Your task to perform on an android device: What's on my calendar today? Image 0: 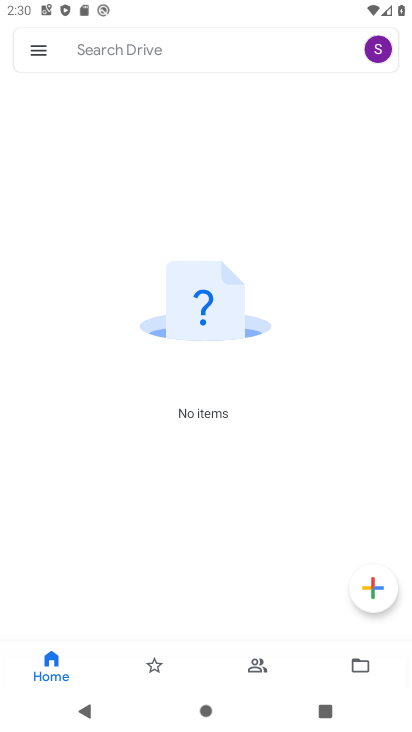
Step 0: press home button
Your task to perform on an android device: What's on my calendar today? Image 1: 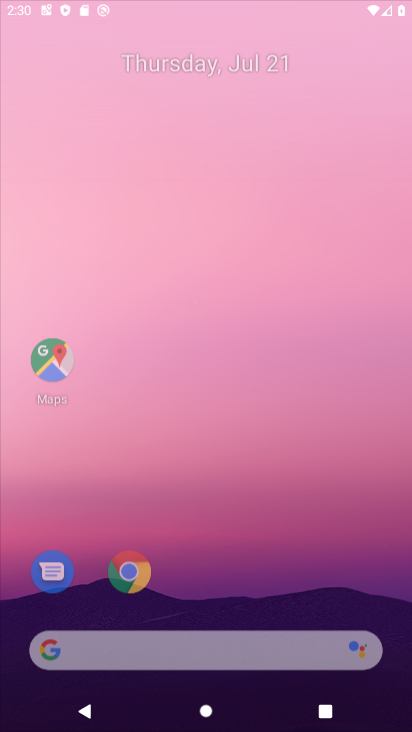
Step 1: drag from (222, 499) to (258, 98)
Your task to perform on an android device: What's on my calendar today? Image 2: 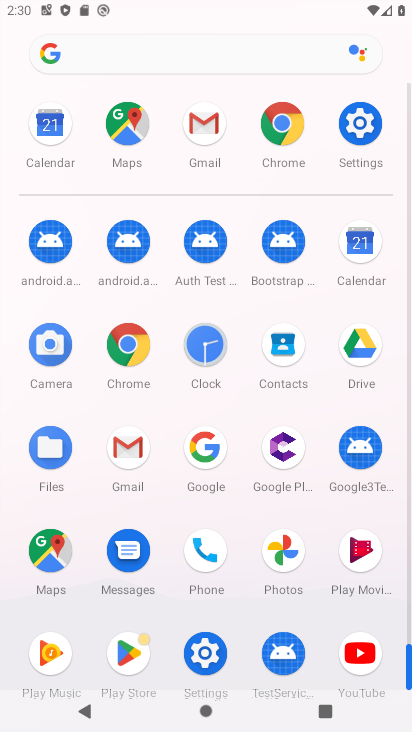
Step 2: drag from (243, 594) to (276, 323)
Your task to perform on an android device: What's on my calendar today? Image 3: 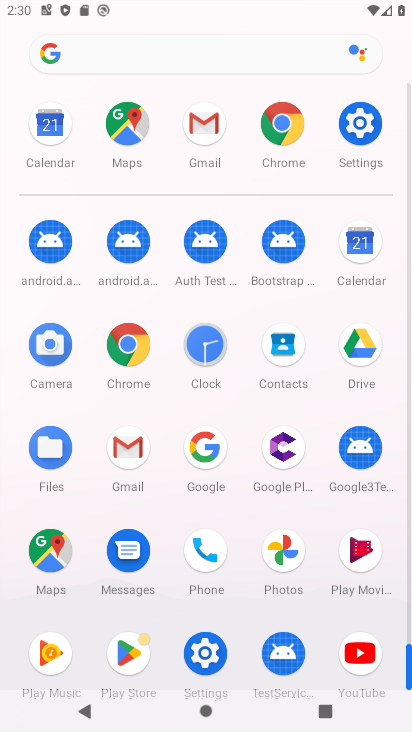
Step 3: drag from (235, 576) to (241, 417)
Your task to perform on an android device: What's on my calendar today? Image 4: 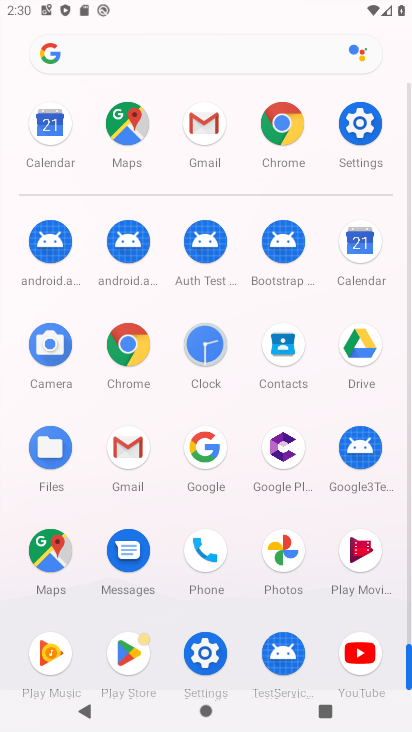
Step 4: drag from (243, 596) to (261, 336)
Your task to perform on an android device: What's on my calendar today? Image 5: 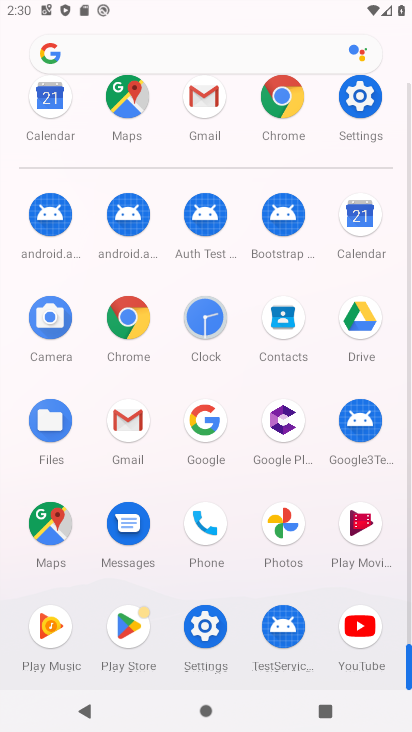
Step 5: click (361, 233)
Your task to perform on an android device: What's on my calendar today? Image 6: 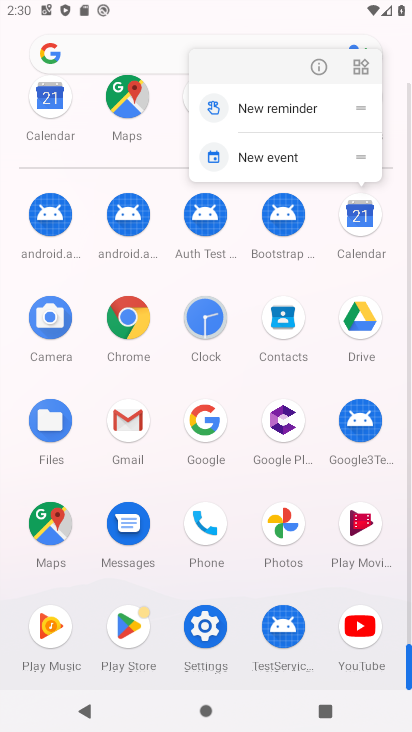
Step 6: click (314, 75)
Your task to perform on an android device: What's on my calendar today? Image 7: 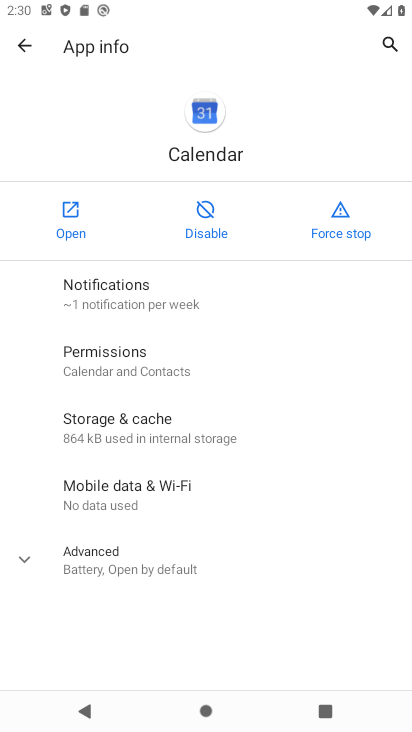
Step 7: click (44, 208)
Your task to perform on an android device: What's on my calendar today? Image 8: 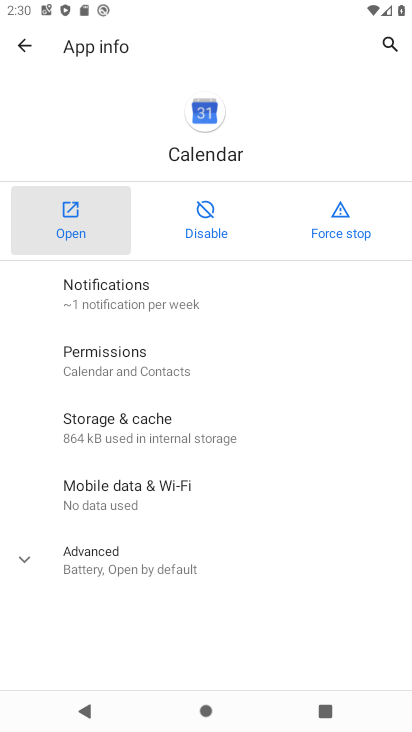
Step 8: click (69, 210)
Your task to perform on an android device: What's on my calendar today? Image 9: 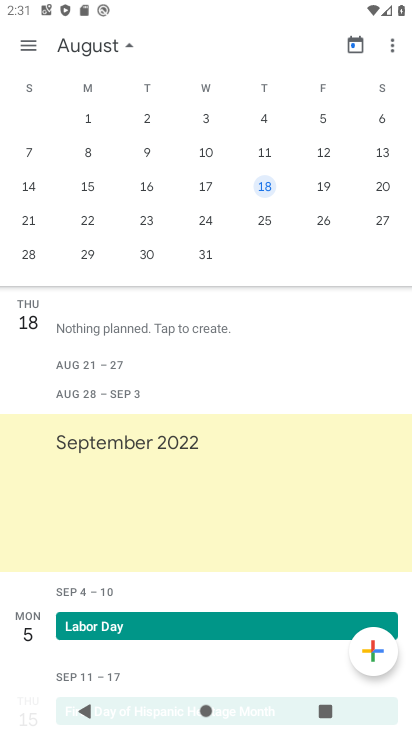
Step 9: click (123, 44)
Your task to perform on an android device: What's on my calendar today? Image 10: 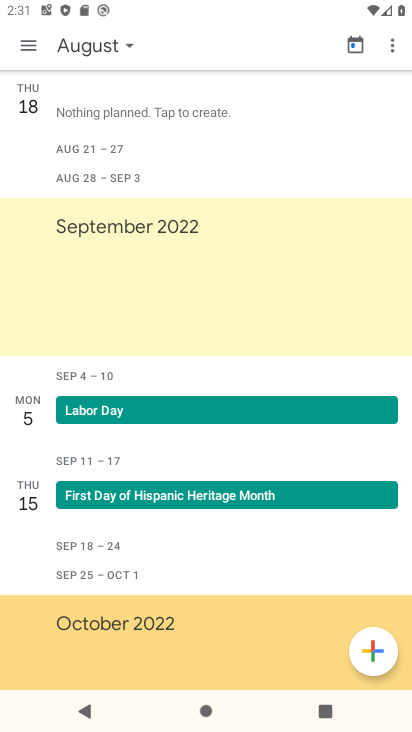
Step 10: click (354, 48)
Your task to perform on an android device: What's on my calendar today? Image 11: 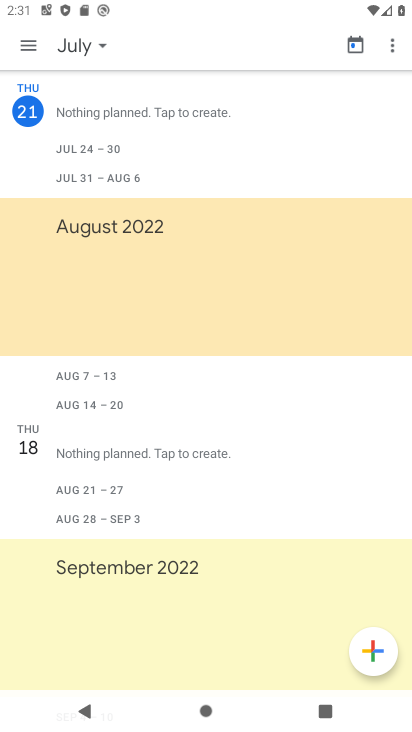
Step 11: click (360, 52)
Your task to perform on an android device: What's on my calendar today? Image 12: 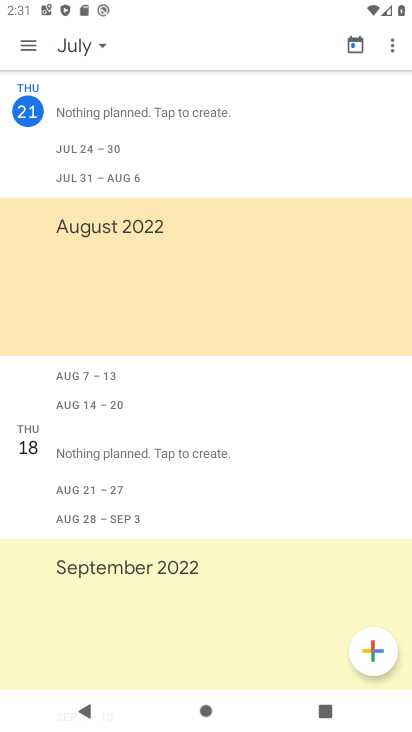
Step 12: click (357, 39)
Your task to perform on an android device: What's on my calendar today? Image 13: 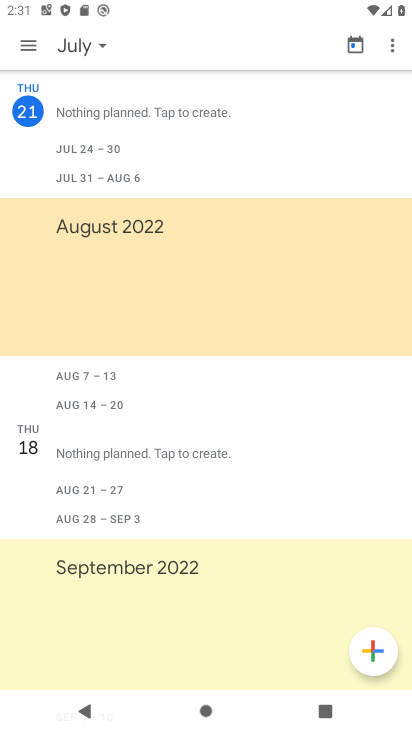
Step 13: task complete